Your task to perform on an android device: Play the latest video from the BBC Image 0: 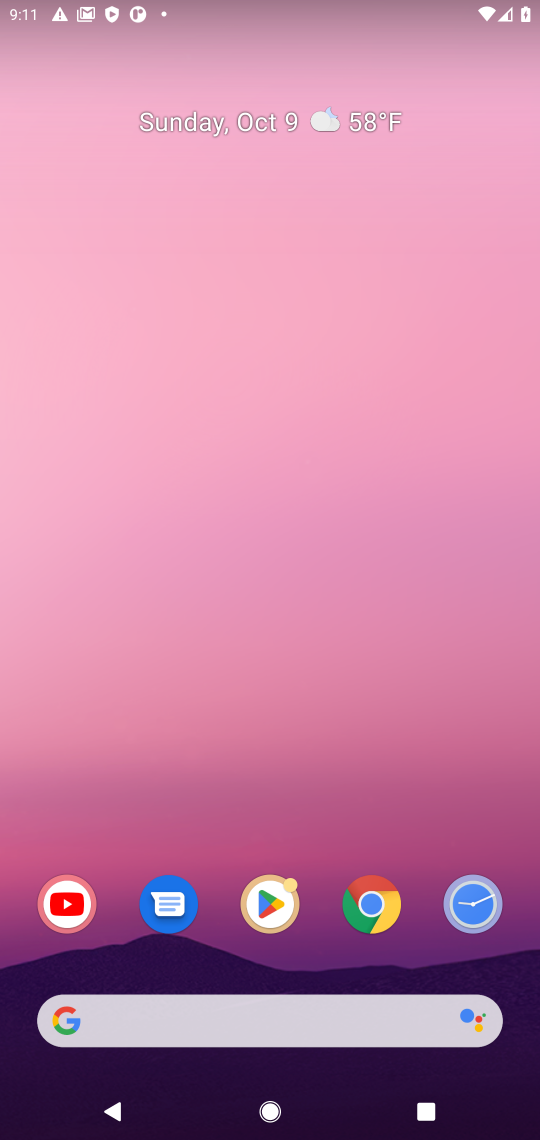
Step 0: click (262, 348)
Your task to perform on an android device: Play the latest video from the BBC Image 1: 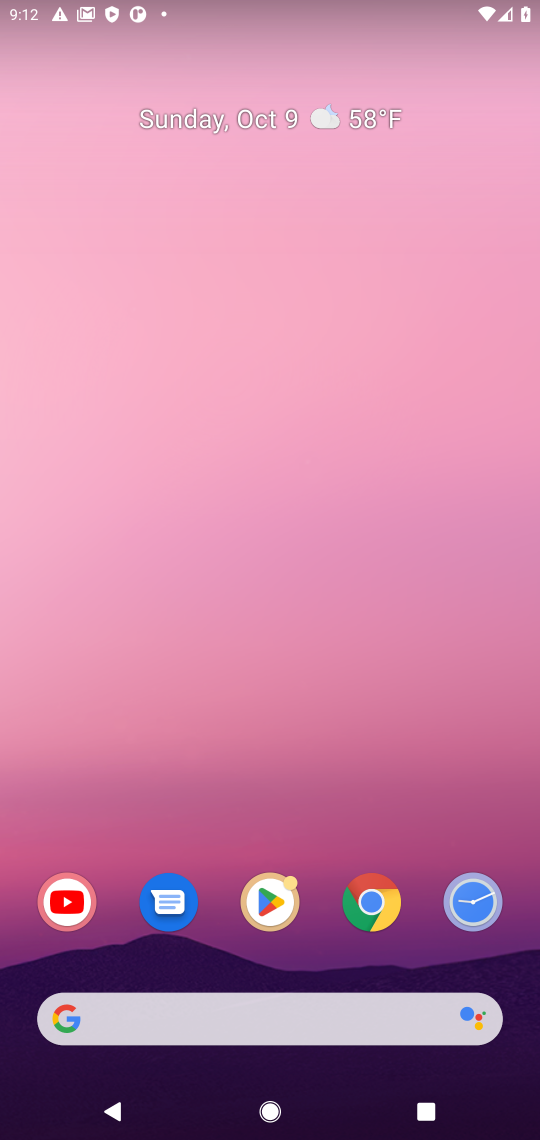
Step 1: click (387, 913)
Your task to perform on an android device: Play the latest video from the BBC Image 2: 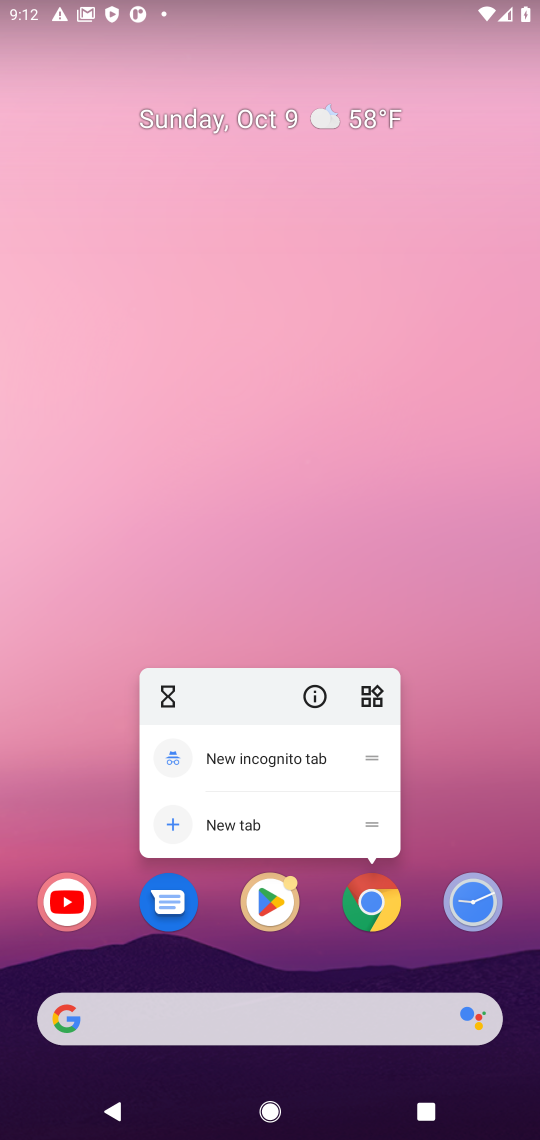
Step 2: click (364, 914)
Your task to perform on an android device: Play the latest video from the BBC Image 3: 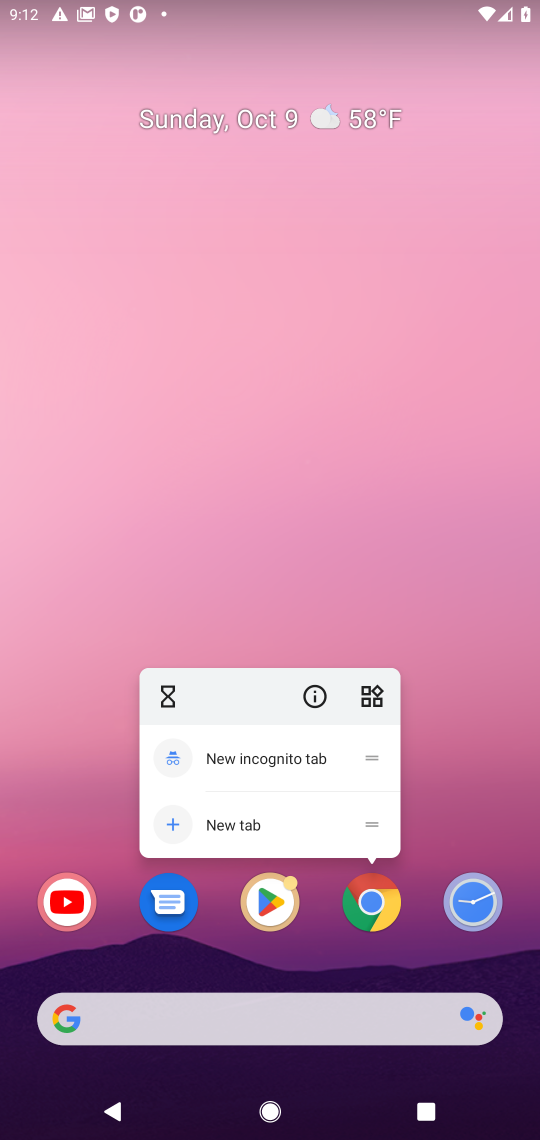
Step 3: click (375, 914)
Your task to perform on an android device: Play the latest video from the BBC Image 4: 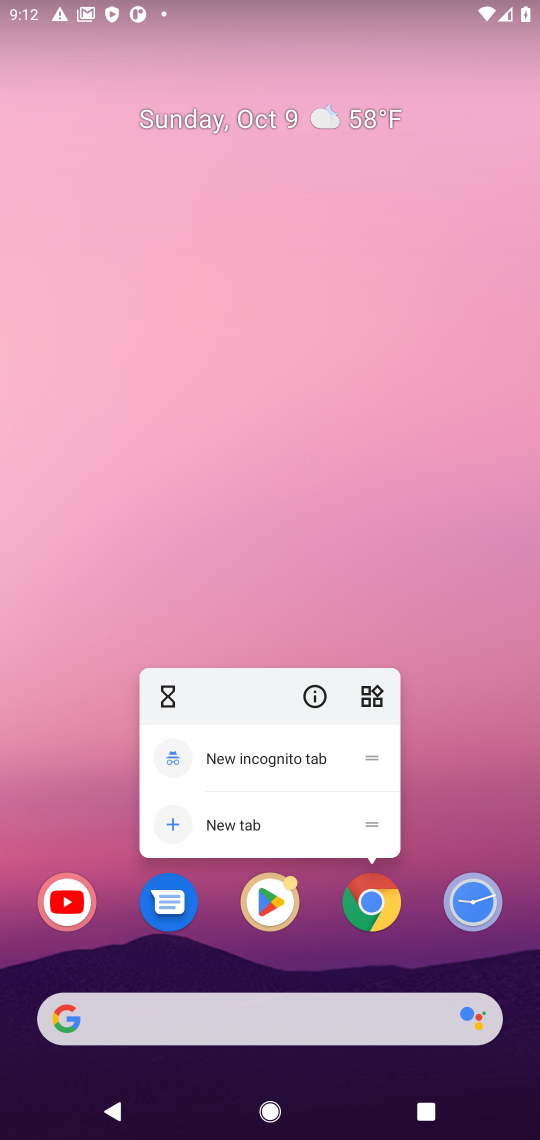
Step 4: click (375, 914)
Your task to perform on an android device: Play the latest video from the BBC Image 5: 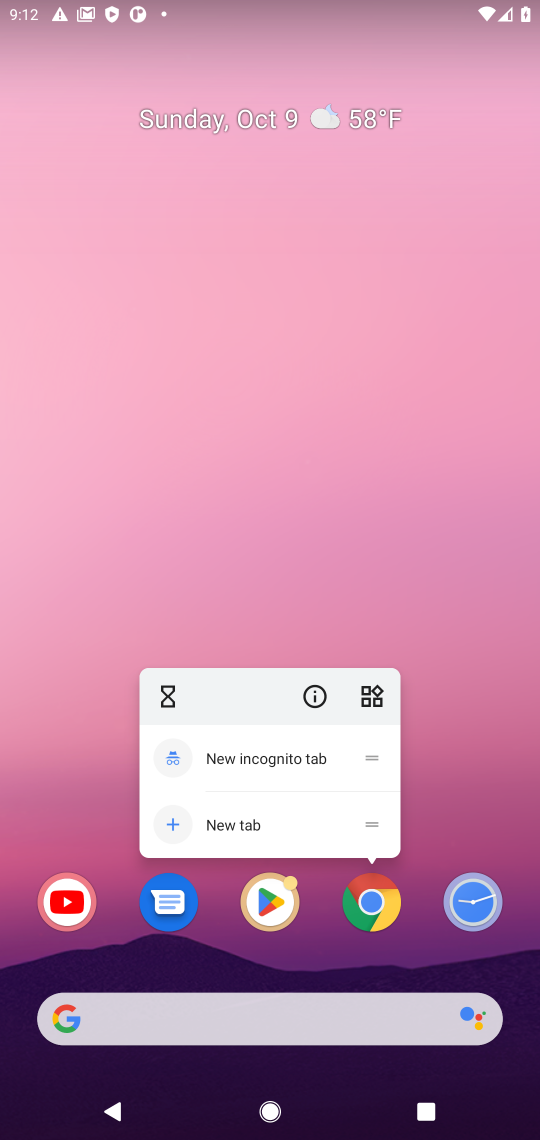
Step 5: click (409, 471)
Your task to perform on an android device: Play the latest video from the BBC Image 6: 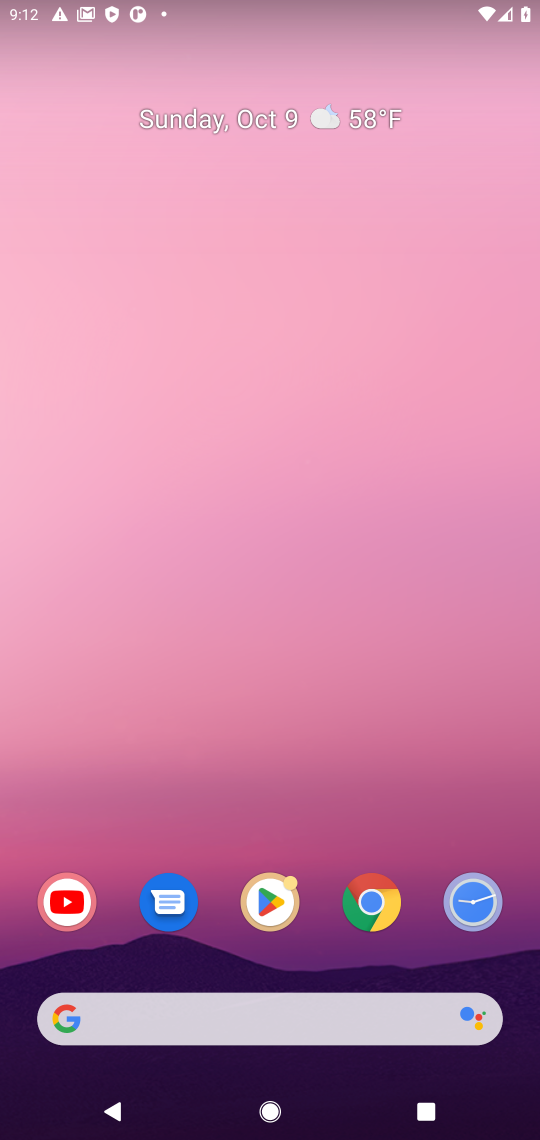
Step 6: click (380, 897)
Your task to perform on an android device: Play the latest video from the BBC Image 7: 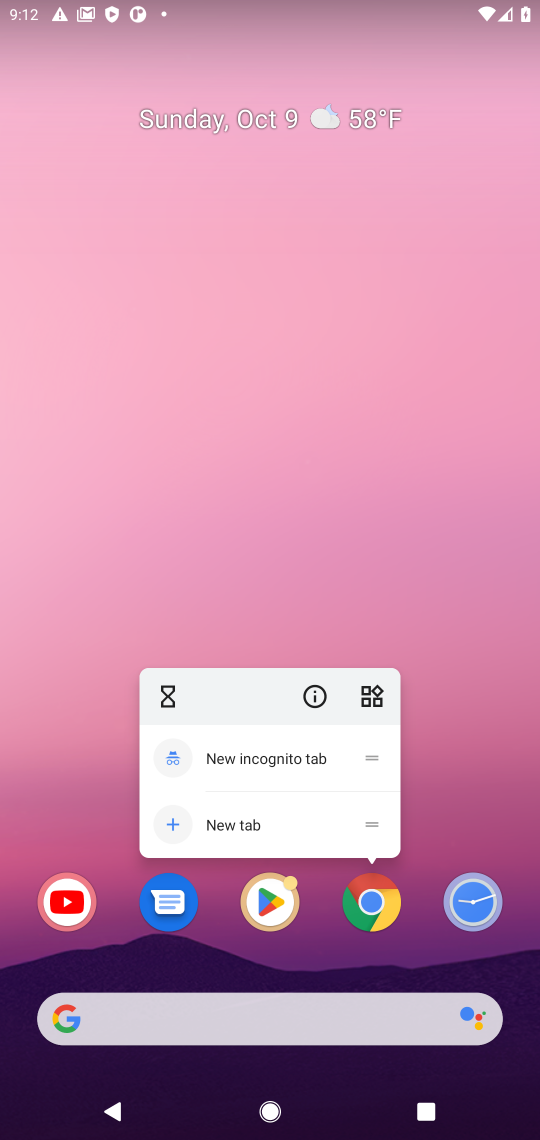
Step 7: click (226, 823)
Your task to perform on an android device: Play the latest video from the BBC Image 8: 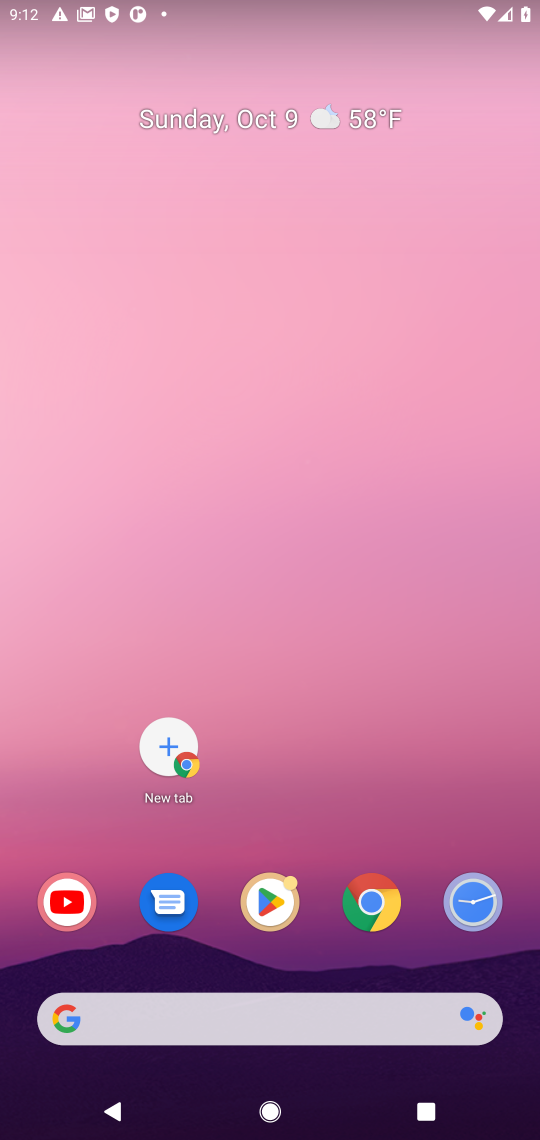
Step 8: click (377, 916)
Your task to perform on an android device: Play the latest video from the BBC Image 9: 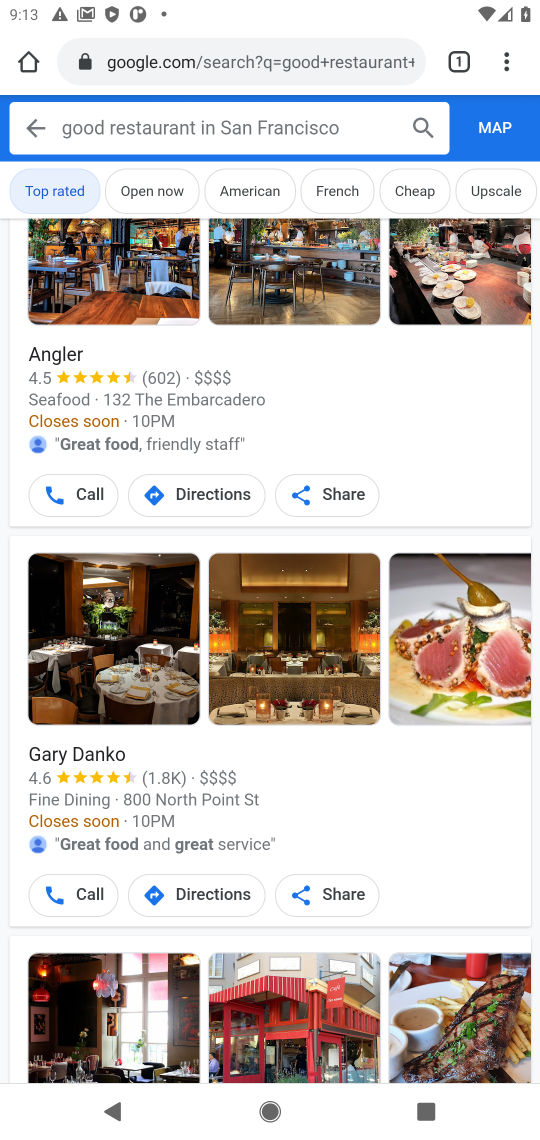
Step 9: click (287, 55)
Your task to perform on an android device: Play the latest video from the BBC Image 10: 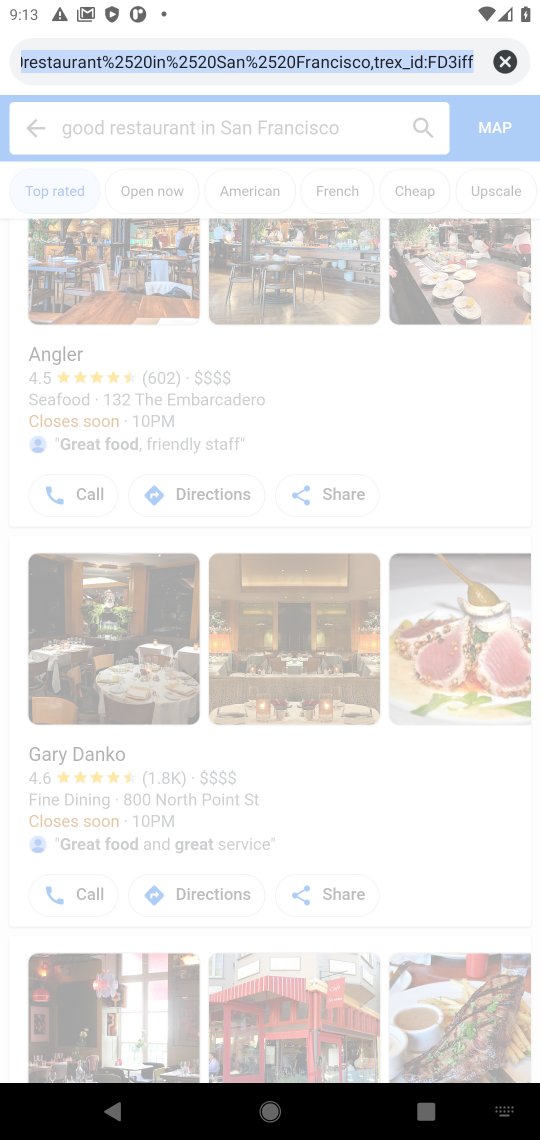
Step 10: type "latest video from the BBC"
Your task to perform on an android device: Play the latest video from the BBC Image 11: 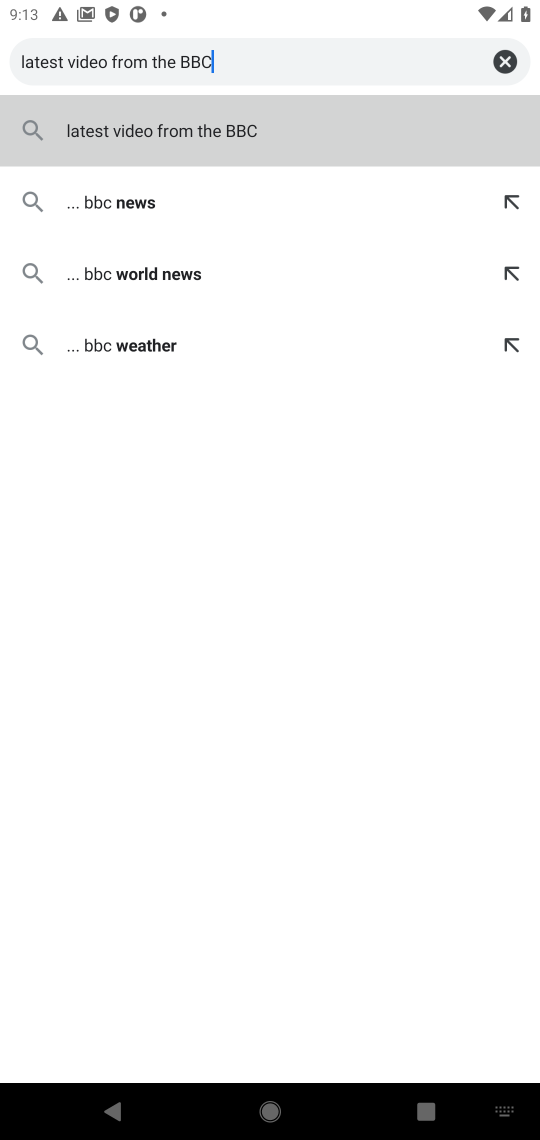
Step 11: click (298, 141)
Your task to perform on an android device: Play the latest video from the BBC Image 12: 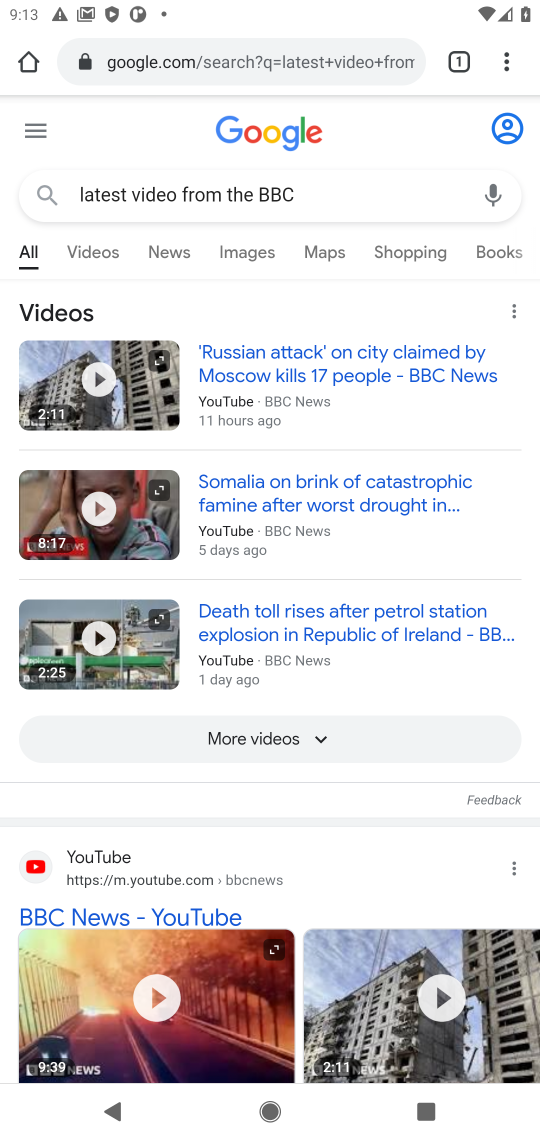
Step 12: drag from (332, 840) to (288, 557)
Your task to perform on an android device: Play the latest video from the BBC Image 13: 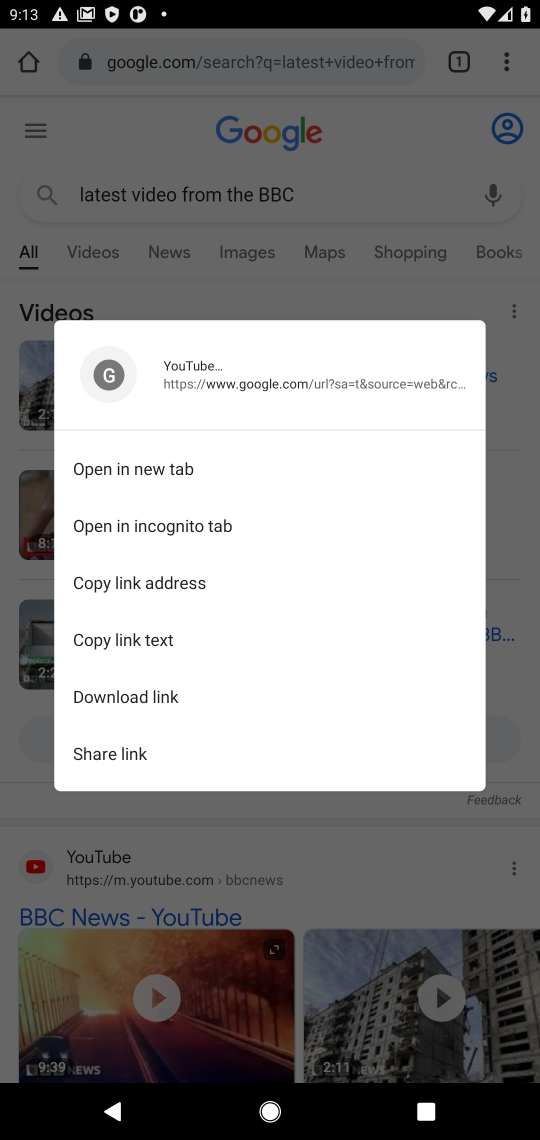
Step 13: click (364, 875)
Your task to perform on an android device: Play the latest video from the BBC Image 14: 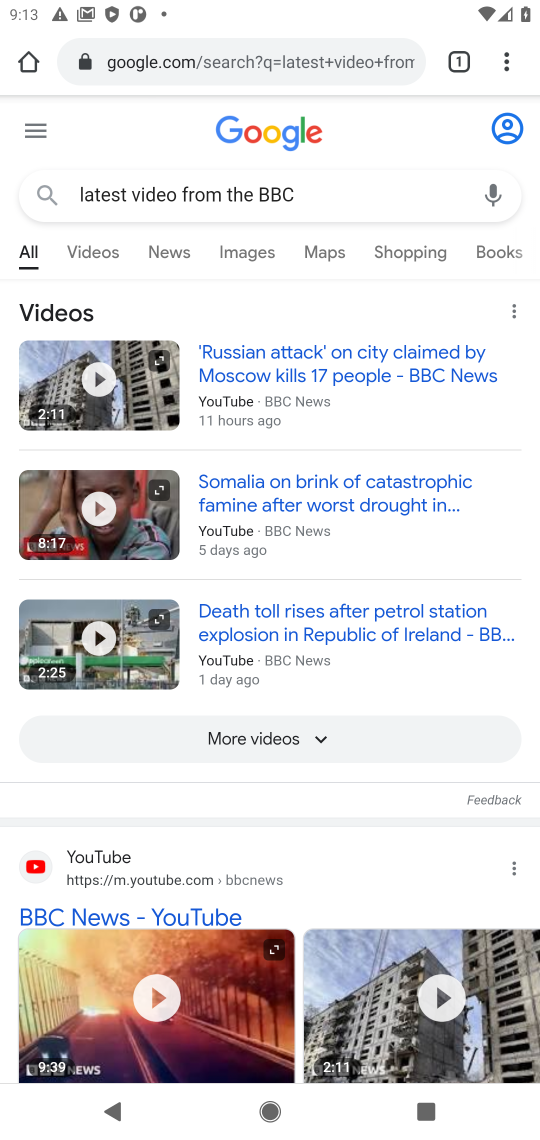
Step 14: drag from (310, 820) to (287, 435)
Your task to perform on an android device: Play the latest video from the BBC Image 15: 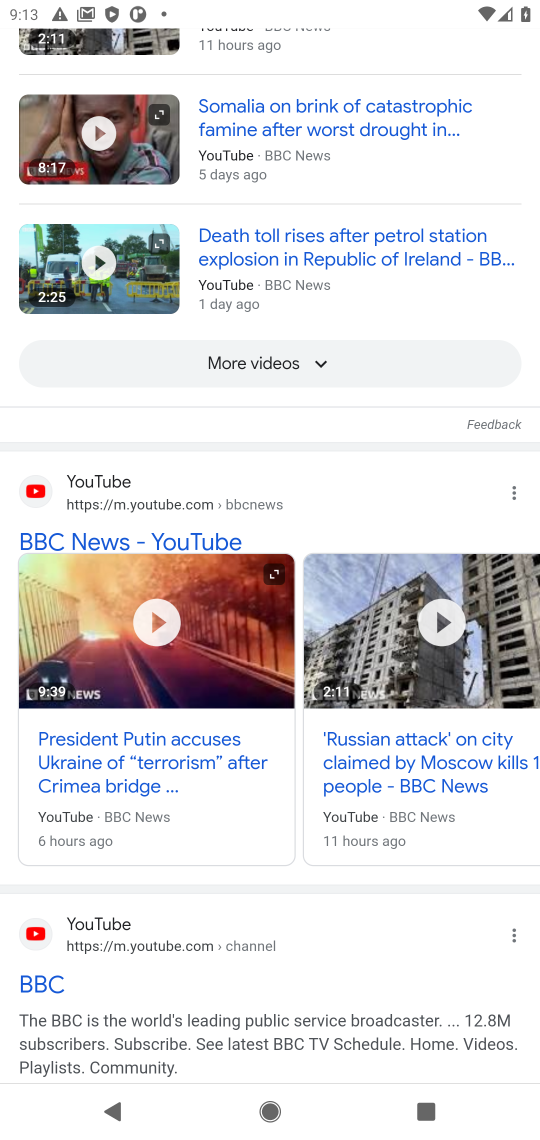
Step 15: click (158, 619)
Your task to perform on an android device: Play the latest video from the BBC Image 16: 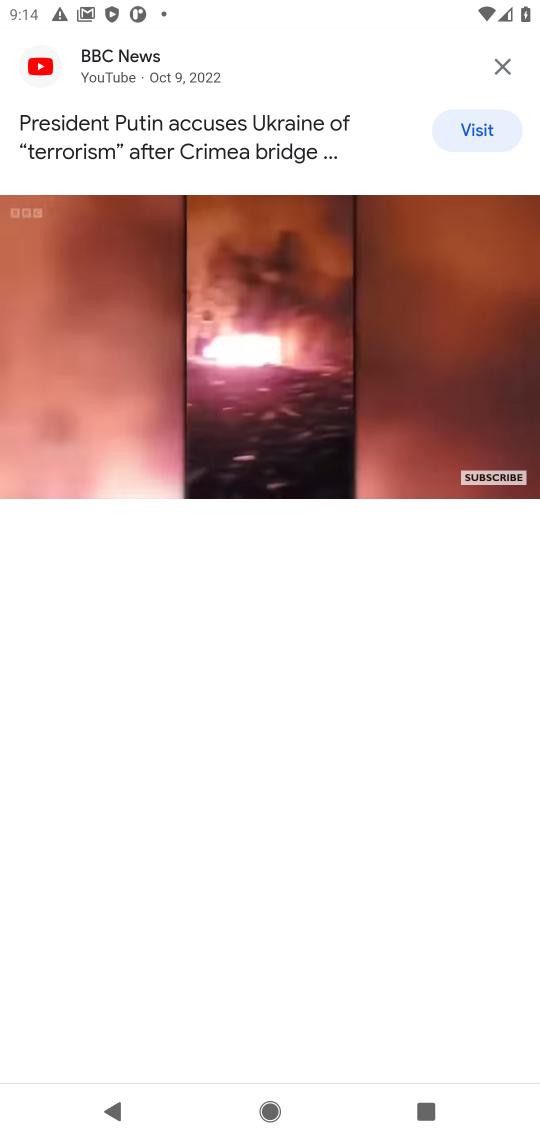
Step 16: task complete